Your task to perform on an android device: turn off notifications in google photos Image 0: 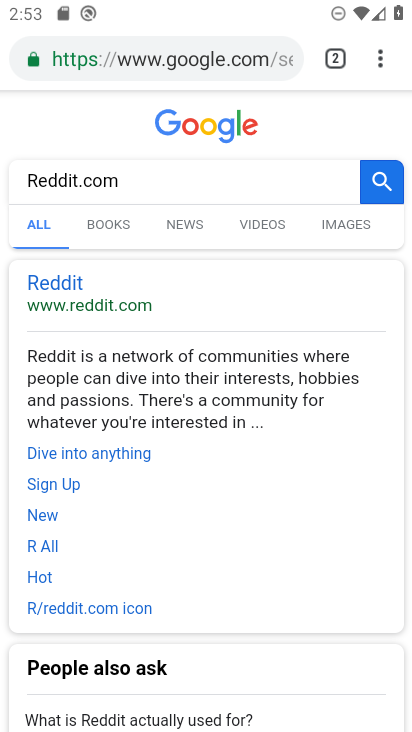
Step 0: press home button
Your task to perform on an android device: turn off notifications in google photos Image 1: 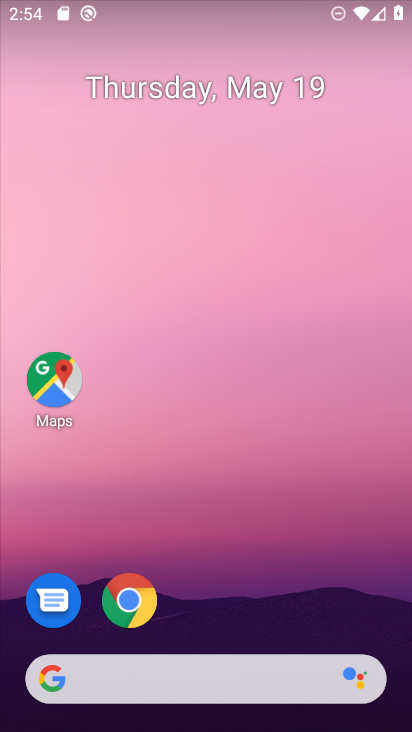
Step 1: drag from (395, 645) to (368, 198)
Your task to perform on an android device: turn off notifications in google photos Image 2: 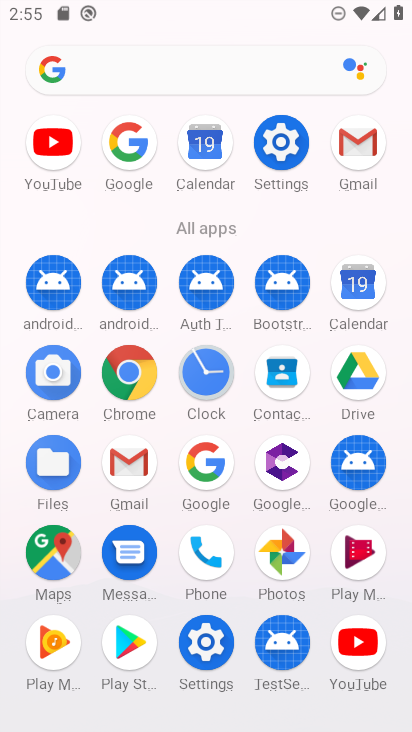
Step 2: click (281, 563)
Your task to perform on an android device: turn off notifications in google photos Image 3: 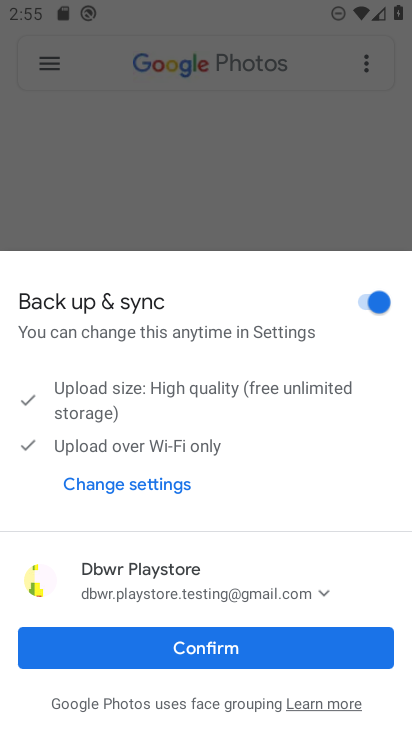
Step 3: click (251, 646)
Your task to perform on an android device: turn off notifications in google photos Image 4: 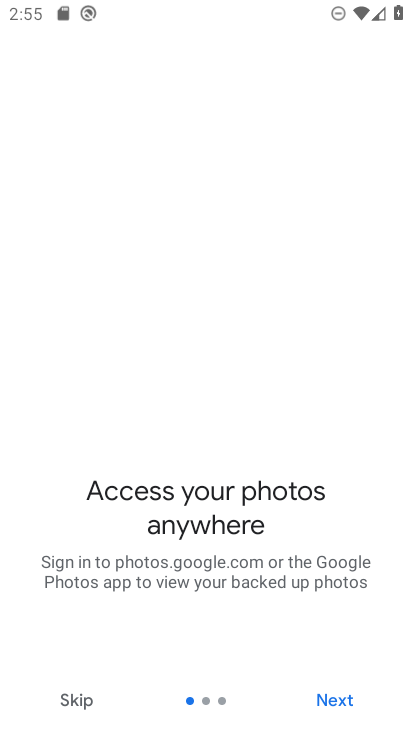
Step 4: click (337, 695)
Your task to perform on an android device: turn off notifications in google photos Image 5: 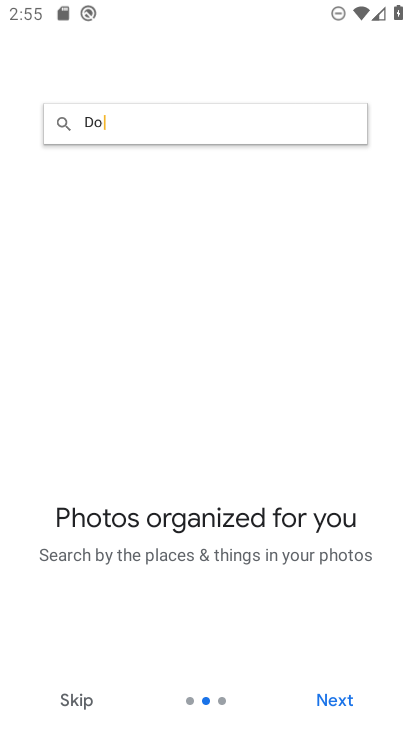
Step 5: click (337, 696)
Your task to perform on an android device: turn off notifications in google photos Image 6: 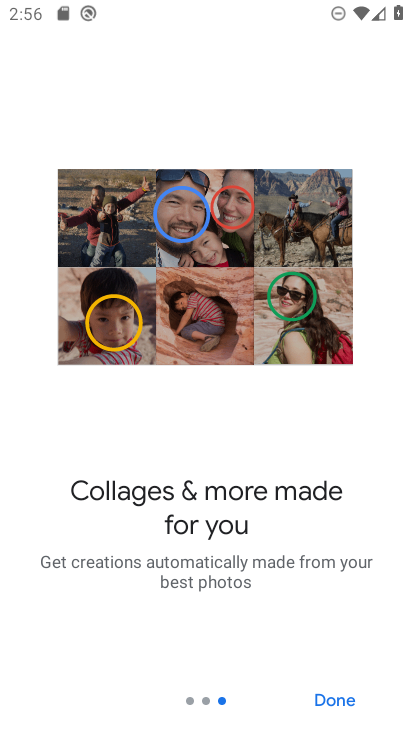
Step 6: click (337, 696)
Your task to perform on an android device: turn off notifications in google photos Image 7: 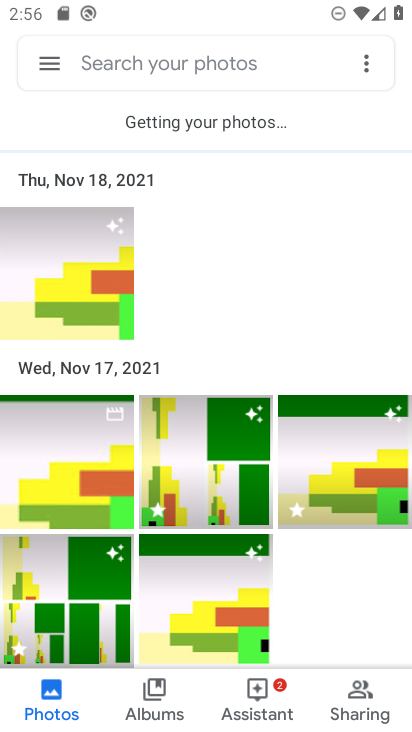
Step 7: click (42, 57)
Your task to perform on an android device: turn off notifications in google photos Image 8: 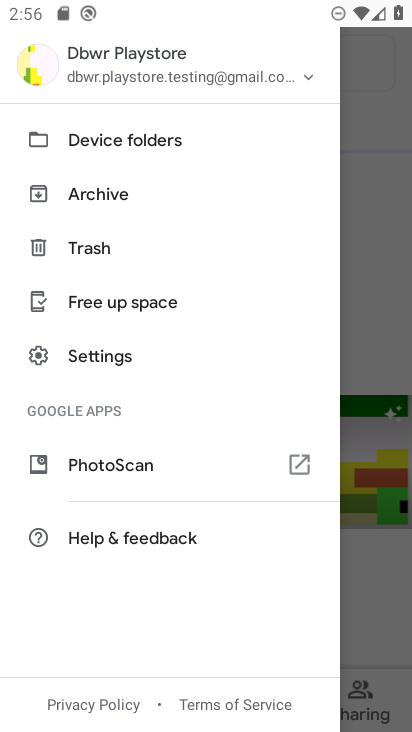
Step 8: click (114, 357)
Your task to perform on an android device: turn off notifications in google photos Image 9: 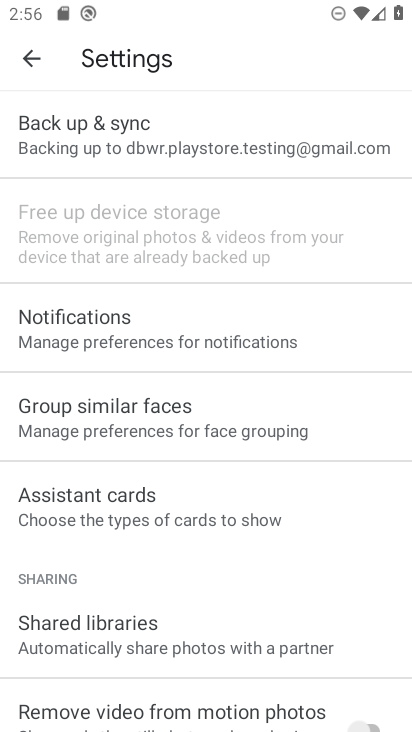
Step 9: click (165, 323)
Your task to perform on an android device: turn off notifications in google photos Image 10: 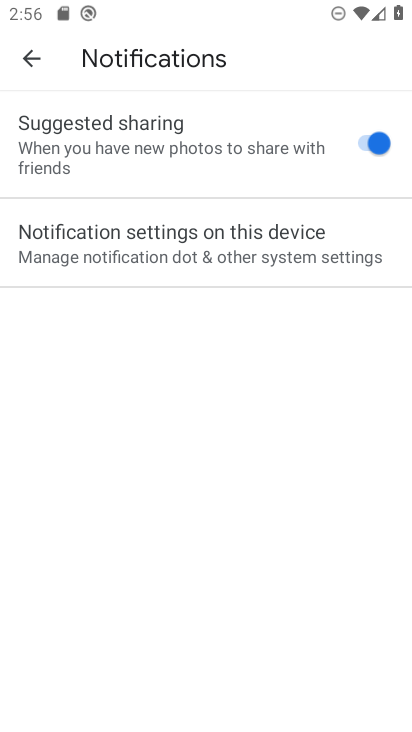
Step 10: click (366, 140)
Your task to perform on an android device: turn off notifications in google photos Image 11: 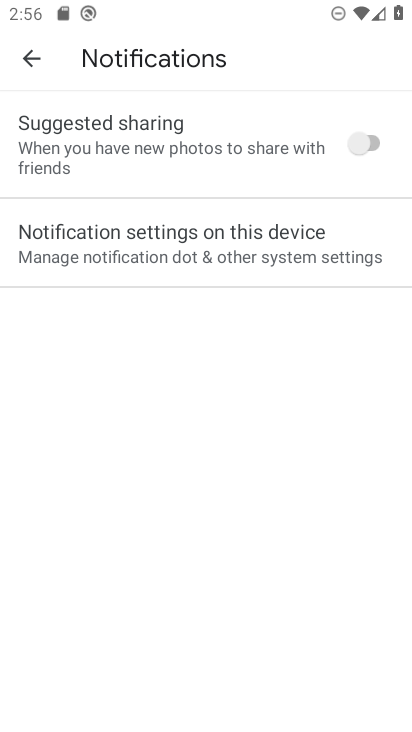
Step 11: click (29, 64)
Your task to perform on an android device: turn off notifications in google photos Image 12: 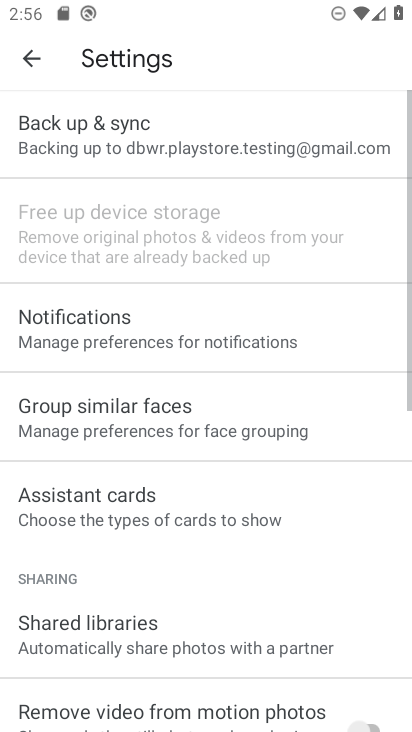
Step 12: click (145, 316)
Your task to perform on an android device: turn off notifications in google photos Image 13: 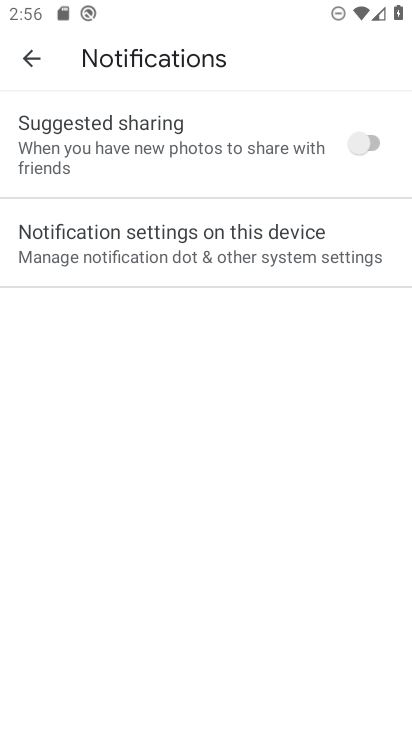
Step 13: task complete